Your task to perform on an android device: Open wifi settings Image 0: 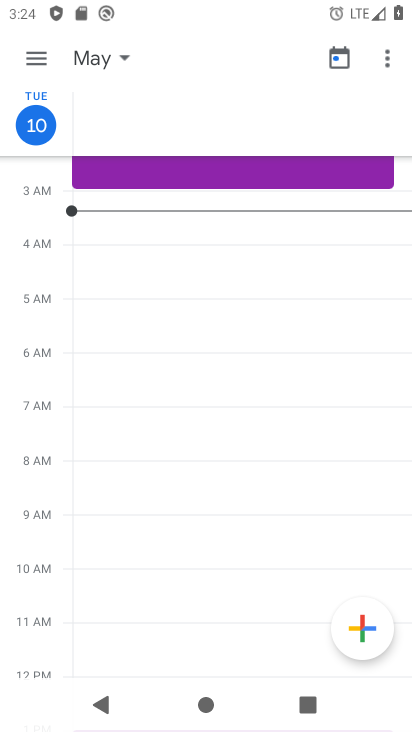
Step 0: press home button
Your task to perform on an android device: Open wifi settings Image 1: 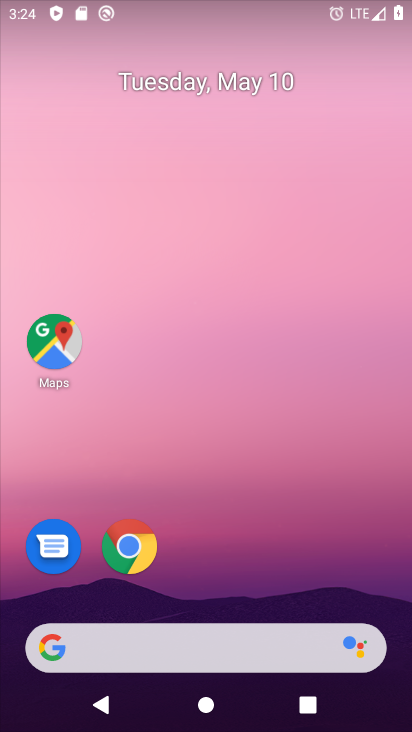
Step 1: drag from (213, 576) to (263, 24)
Your task to perform on an android device: Open wifi settings Image 2: 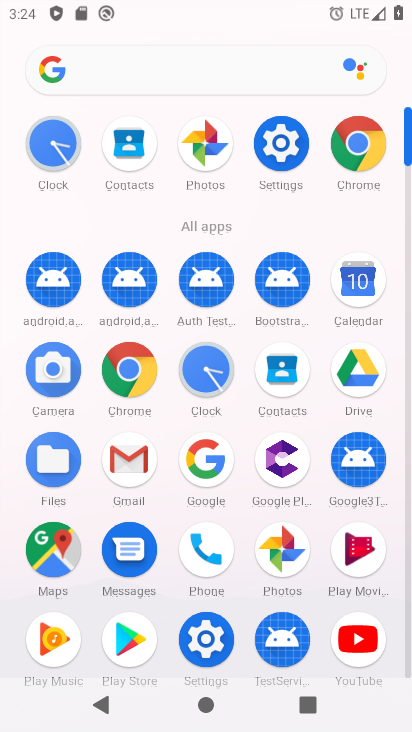
Step 2: click (294, 165)
Your task to perform on an android device: Open wifi settings Image 3: 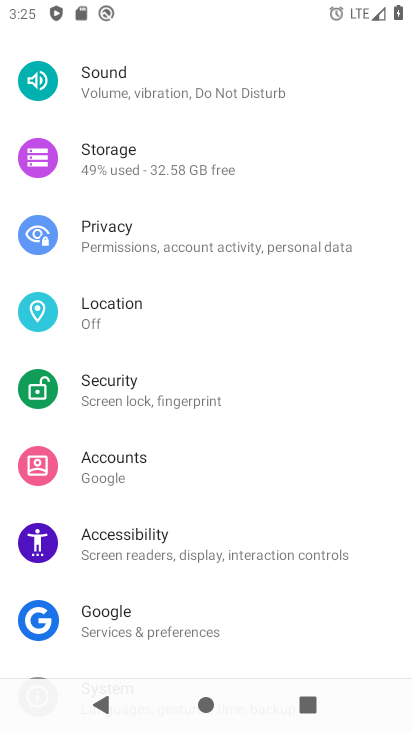
Step 3: drag from (257, 172) to (228, 582)
Your task to perform on an android device: Open wifi settings Image 4: 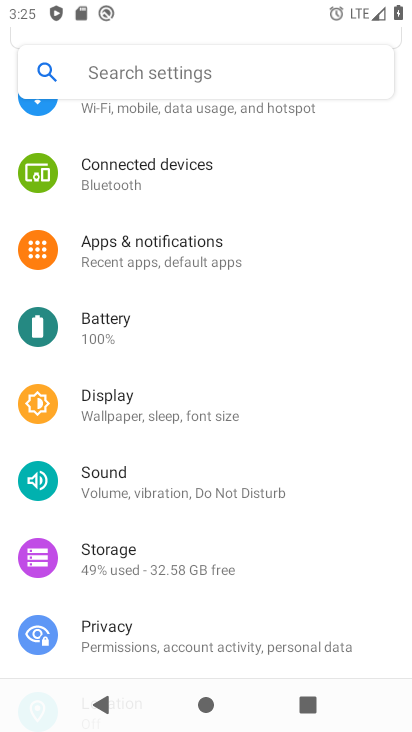
Step 4: drag from (217, 244) to (216, 667)
Your task to perform on an android device: Open wifi settings Image 5: 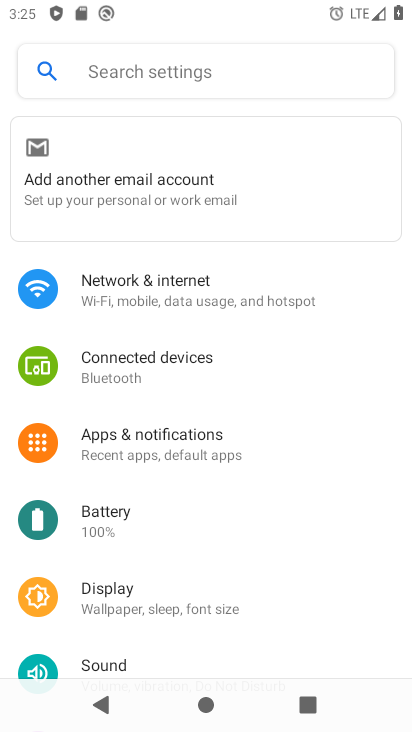
Step 5: click (164, 308)
Your task to perform on an android device: Open wifi settings Image 6: 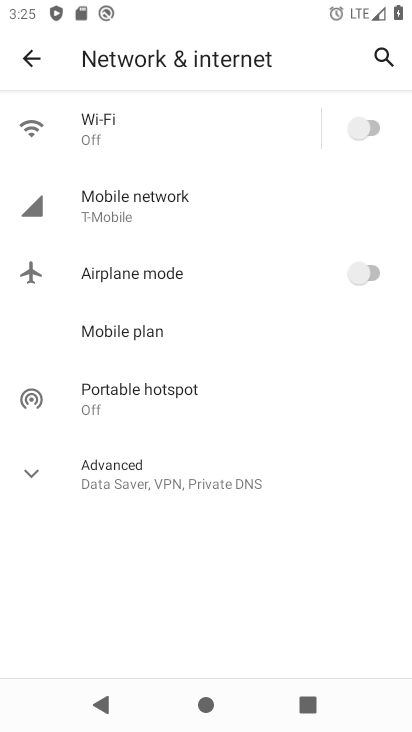
Step 6: click (140, 144)
Your task to perform on an android device: Open wifi settings Image 7: 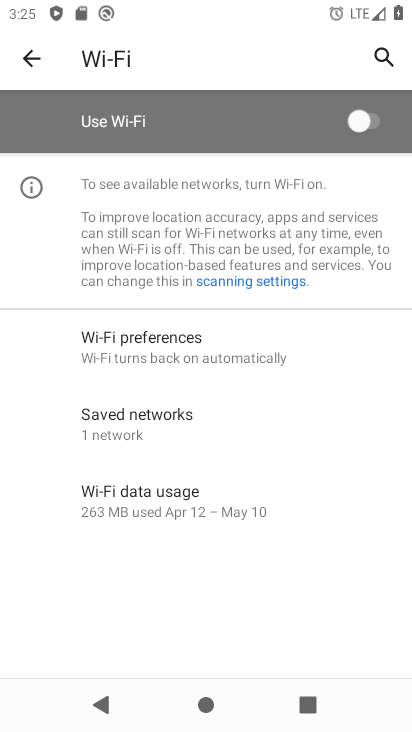
Step 7: task complete